Your task to perform on an android device: Open eBay Image 0: 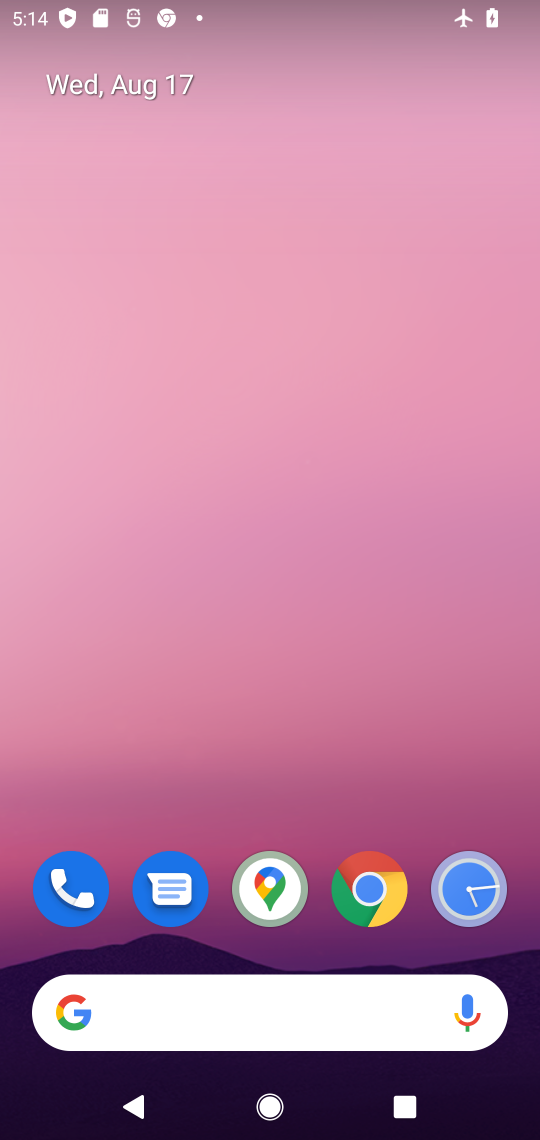
Step 0: click (371, 889)
Your task to perform on an android device: Open eBay Image 1: 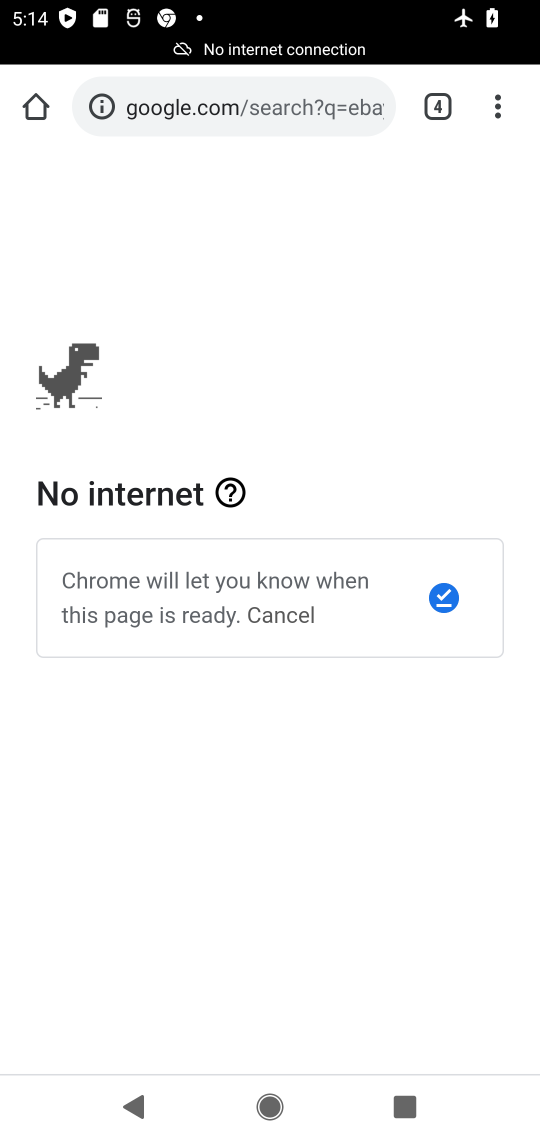
Step 1: click (501, 121)
Your task to perform on an android device: Open eBay Image 2: 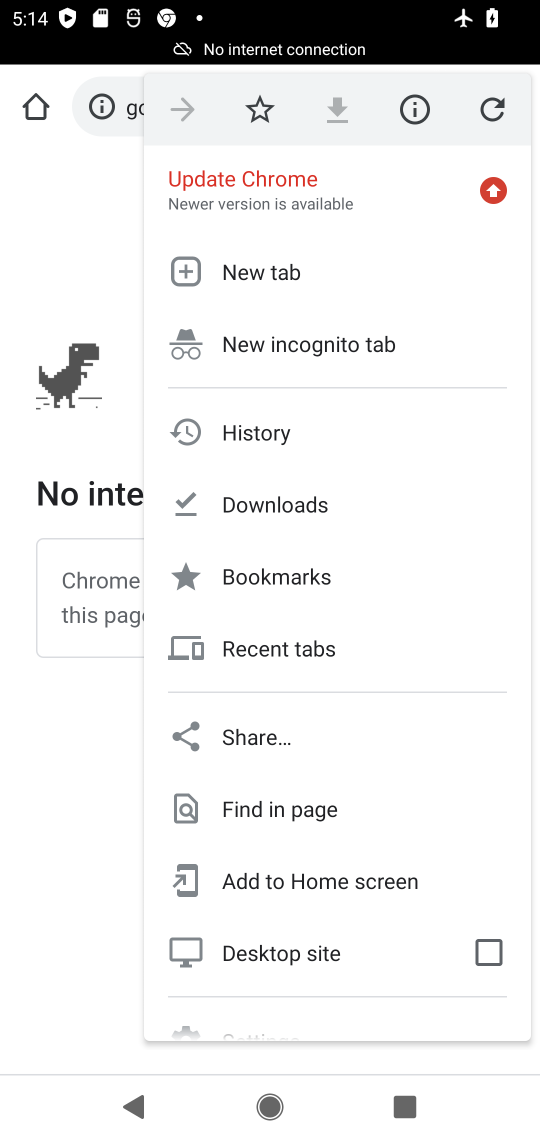
Step 2: click (256, 256)
Your task to perform on an android device: Open eBay Image 3: 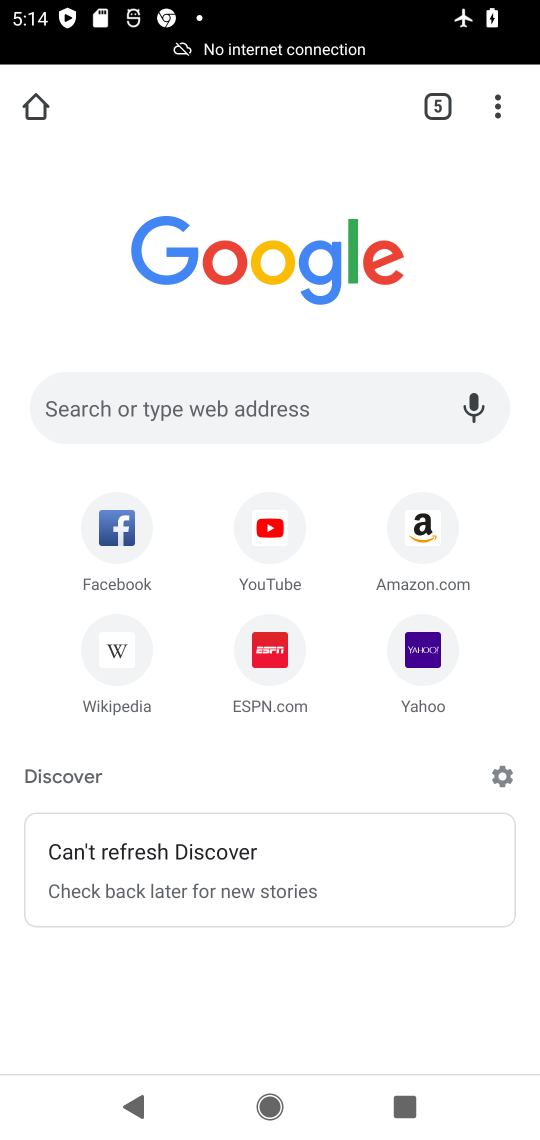
Step 3: click (245, 408)
Your task to perform on an android device: Open eBay Image 4: 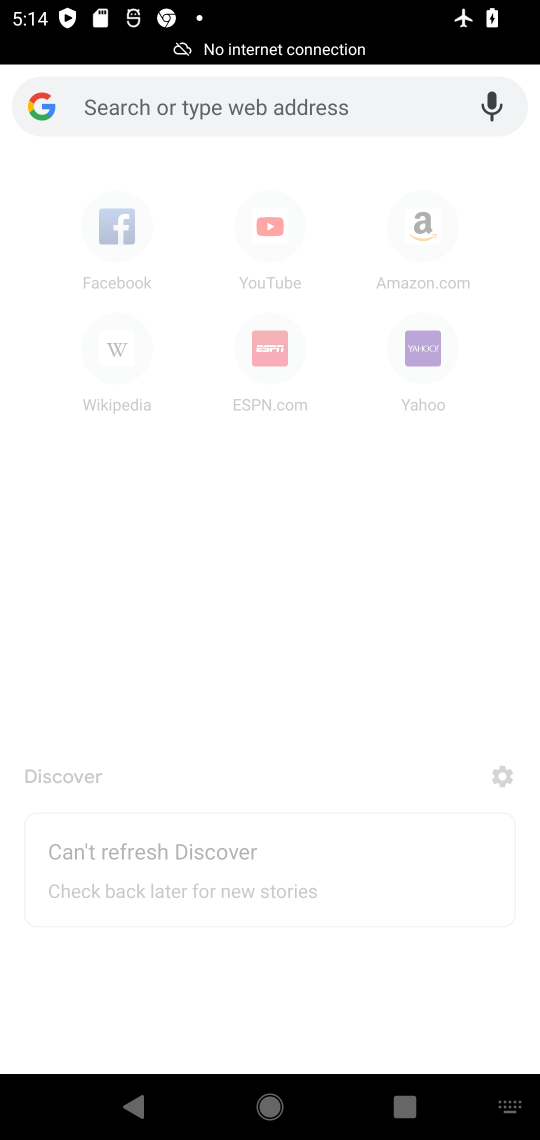
Step 4: type "ebay"
Your task to perform on an android device: Open eBay Image 5: 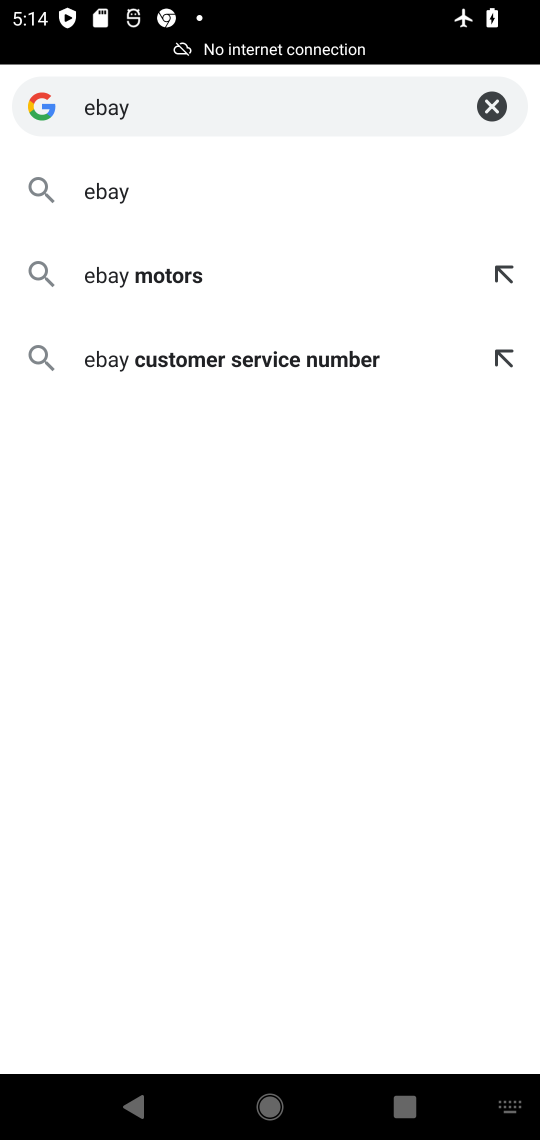
Step 5: click (106, 200)
Your task to perform on an android device: Open eBay Image 6: 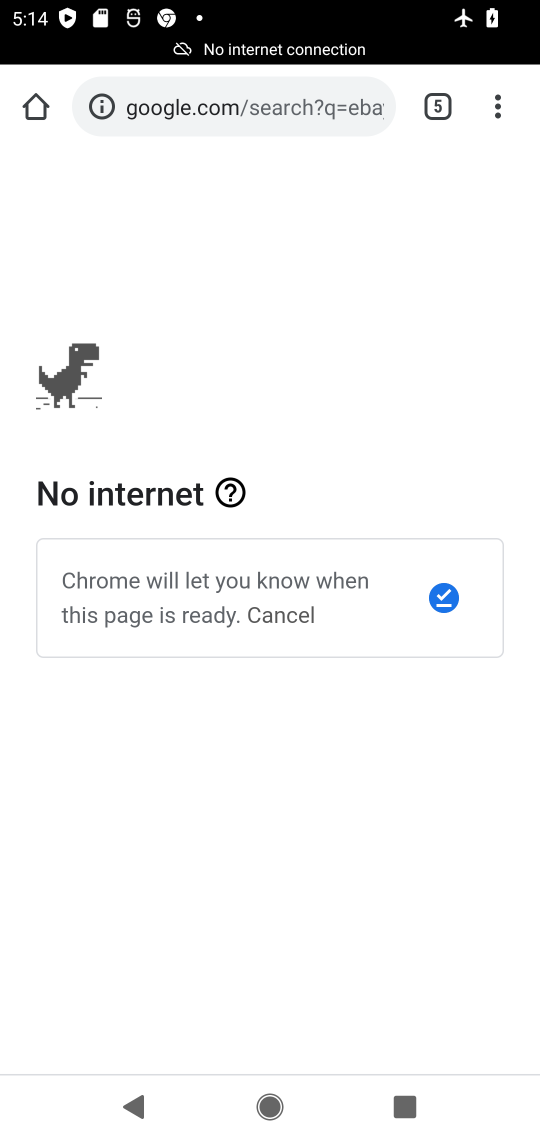
Step 6: task complete